Your task to perform on an android device: find which apps use the phone's location Image 0: 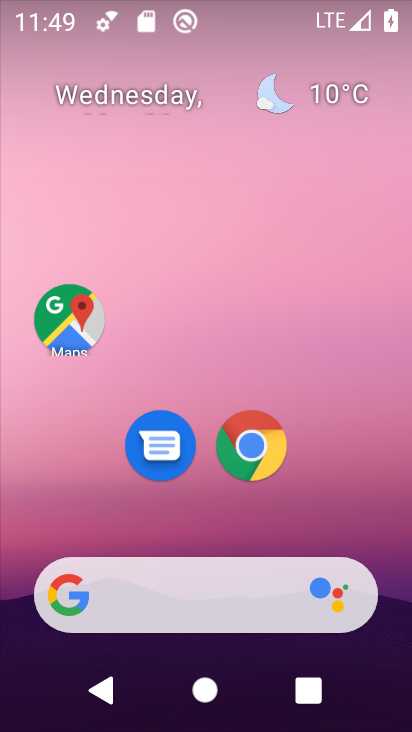
Step 0: drag from (217, 491) to (282, 92)
Your task to perform on an android device: find which apps use the phone's location Image 1: 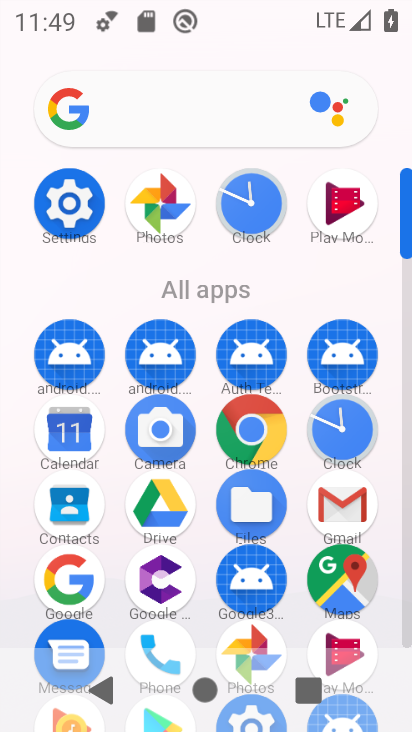
Step 1: click (55, 189)
Your task to perform on an android device: find which apps use the phone's location Image 2: 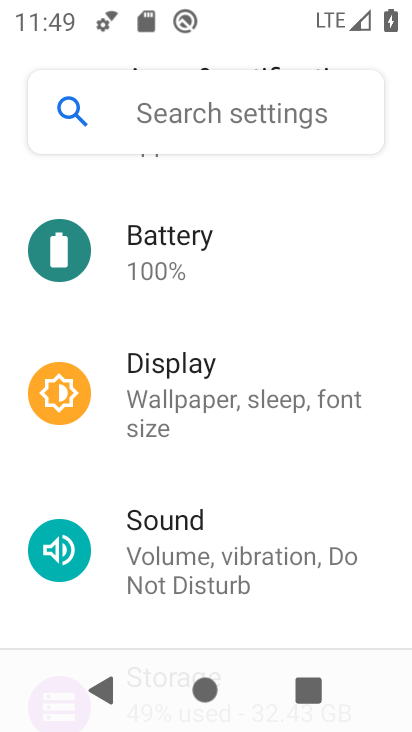
Step 2: drag from (194, 575) to (296, 50)
Your task to perform on an android device: find which apps use the phone's location Image 3: 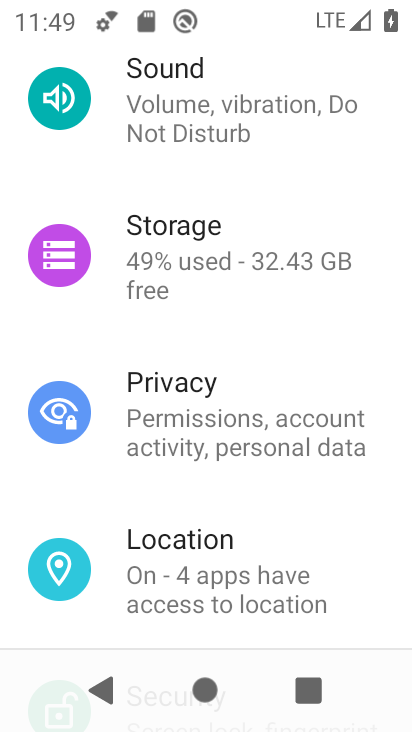
Step 3: click (191, 557)
Your task to perform on an android device: find which apps use the phone's location Image 4: 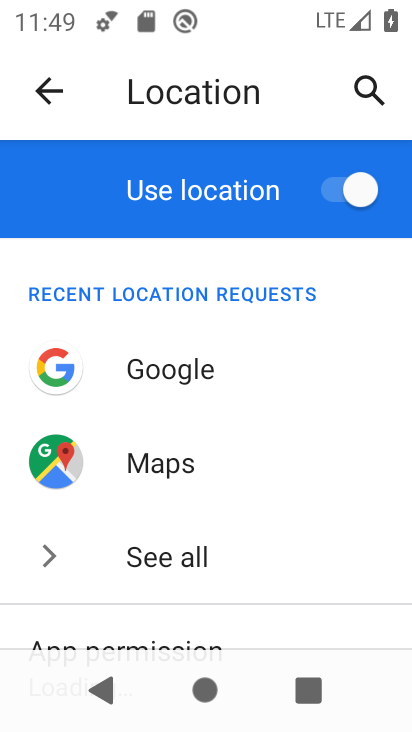
Step 4: drag from (194, 580) to (241, 178)
Your task to perform on an android device: find which apps use the phone's location Image 5: 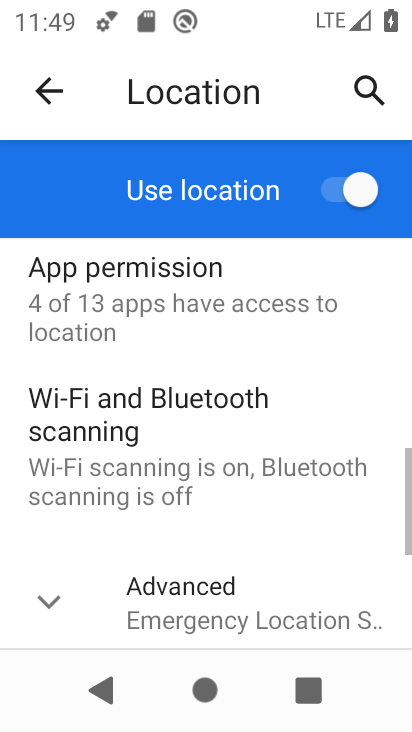
Step 5: click (77, 300)
Your task to perform on an android device: find which apps use the phone's location Image 6: 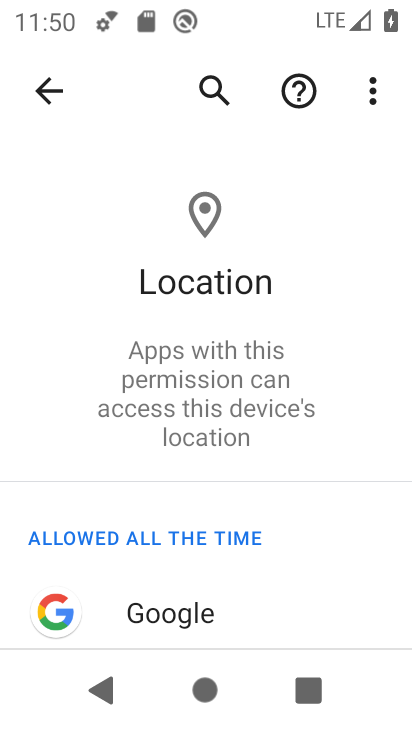
Step 6: task complete